Your task to perform on an android device: Open Amazon Image 0: 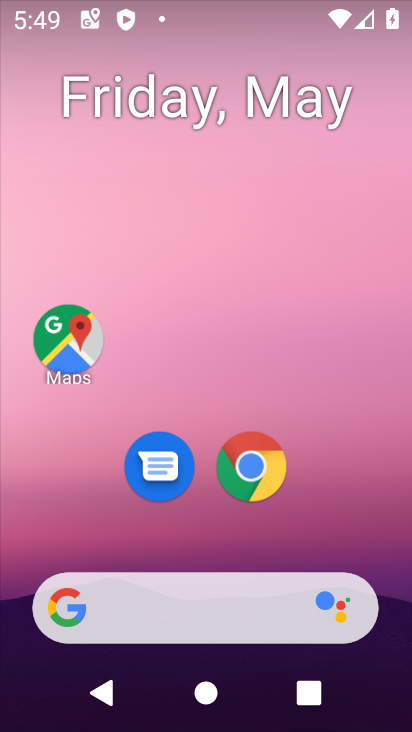
Step 0: drag from (348, 527) to (207, 20)
Your task to perform on an android device: Open Amazon Image 1: 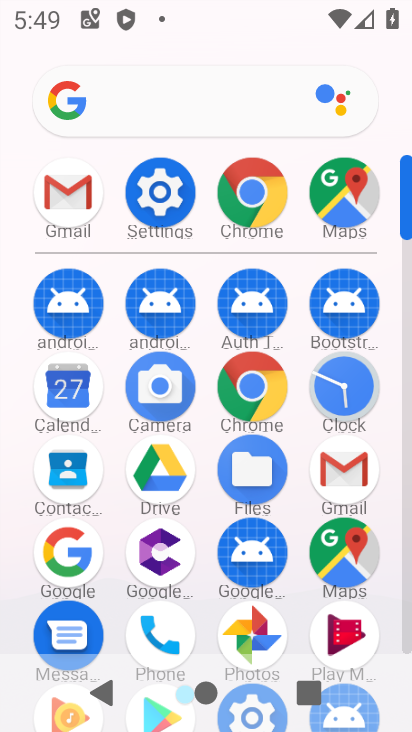
Step 1: click (251, 187)
Your task to perform on an android device: Open Amazon Image 2: 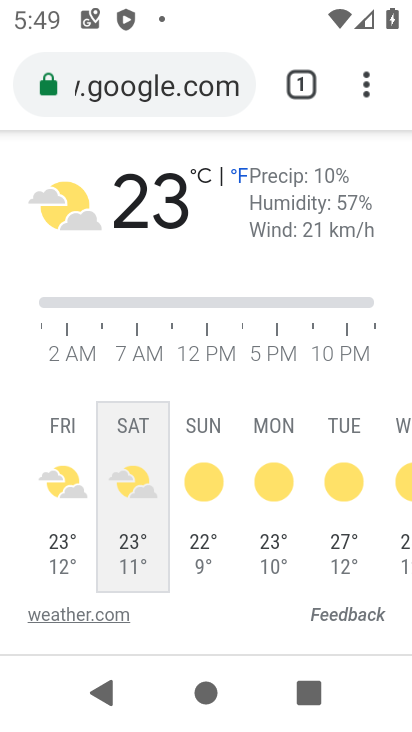
Step 2: click (196, 86)
Your task to perform on an android device: Open Amazon Image 3: 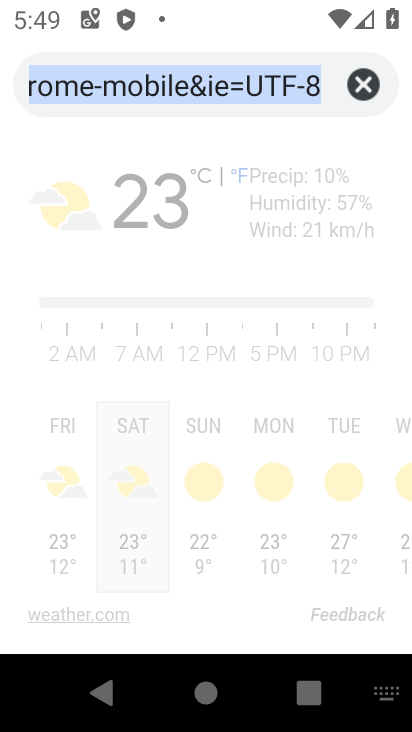
Step 3: click (354, 85)
Your task to perform on an android device: Open Amazon Image 4: 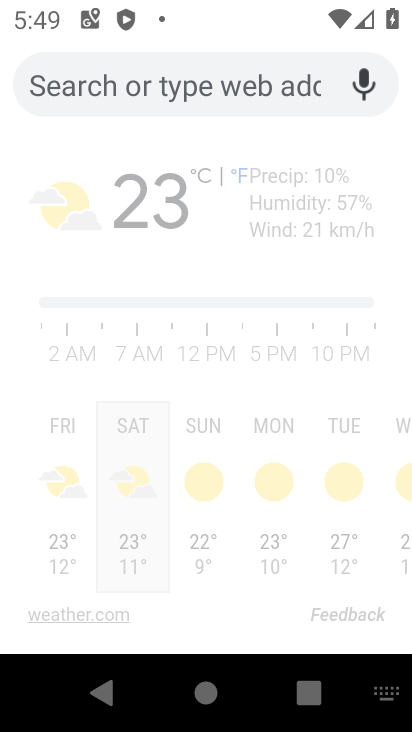
Step 4: type "Amazon"
Your task to perform on an android device: Open Amazon Image 5: 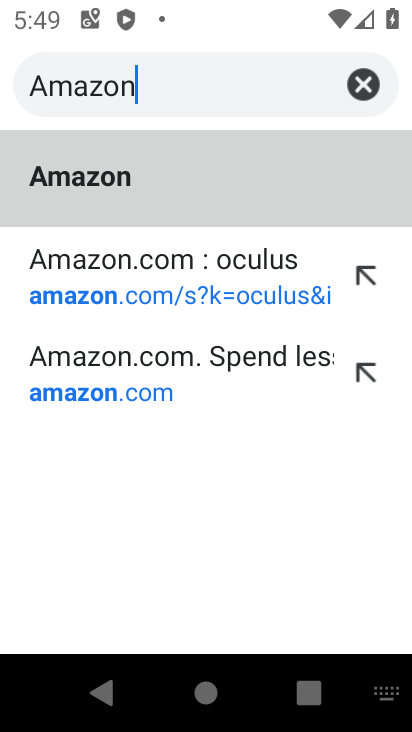
Step 5: type ""
Your task to perform on an android device: Open Amazon Image 6: 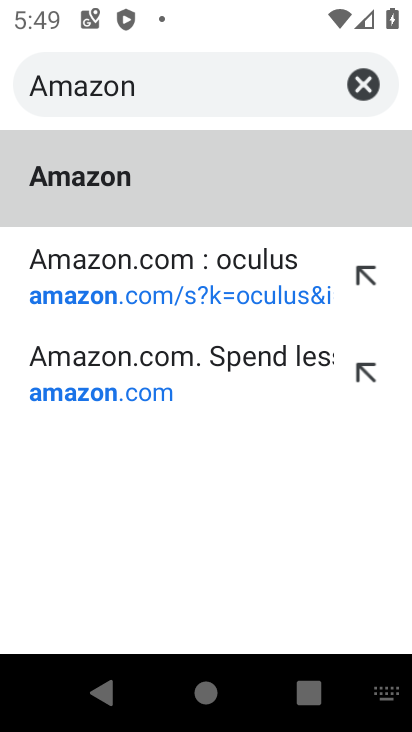
Step 6: click (125, 167)
Your task to perform on an android device: Open Amazon Image 7: 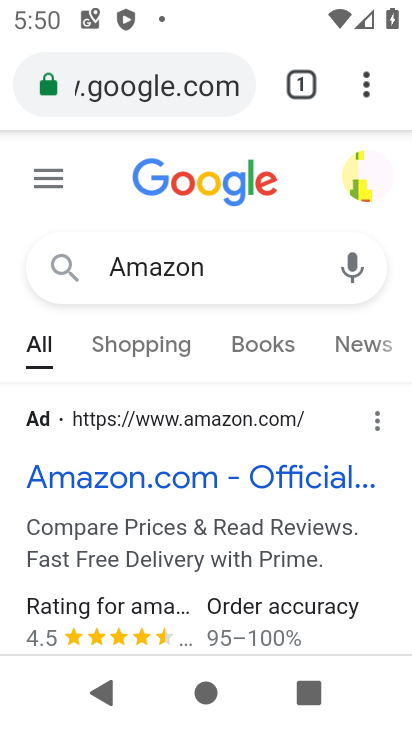
Step 7: click (88, 468)
Your task to perform on an android device: Open Amazon Image 8: 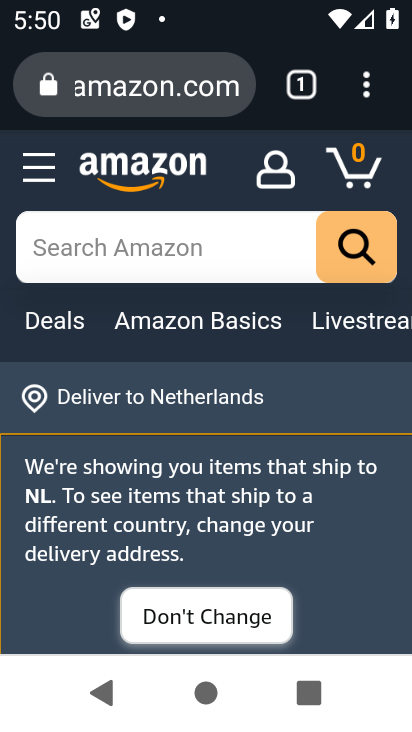
Step 8: task complete